Your task to perform on an android device: clear all cookies in the chrome app Image 0: 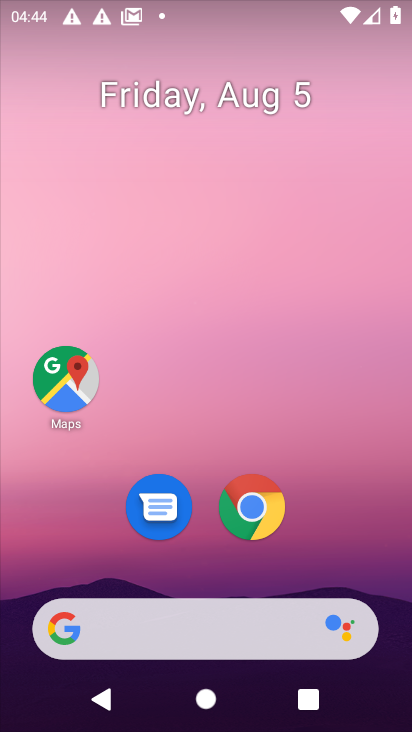
Step 0: click (251, 520)
Your task to perform on an android device: clear all cookies in the chrome app Image 1: 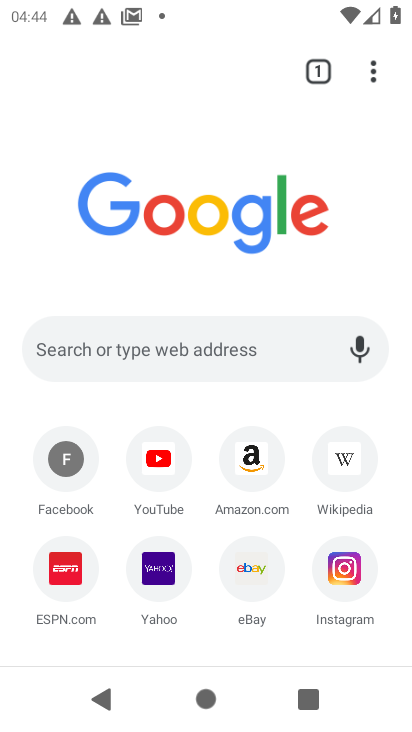
Step 1: click (369, 70)
Your task to perform on an android device: clear all cookies in the chrome app Image 2: 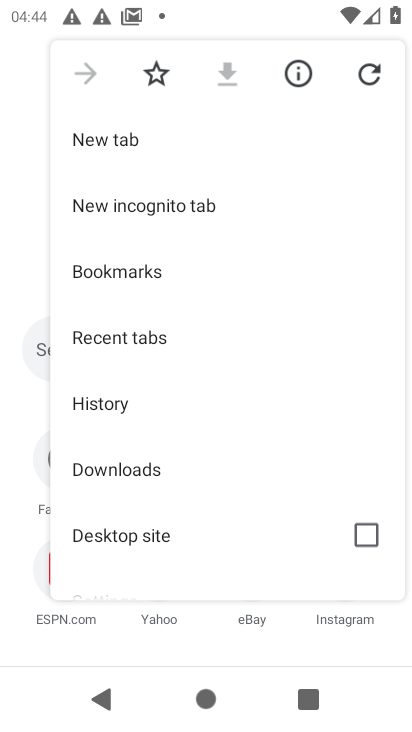
Step 2: click (140, 406)
Your task to perform on an android device: clear all cookies in the chrome app Image 3: 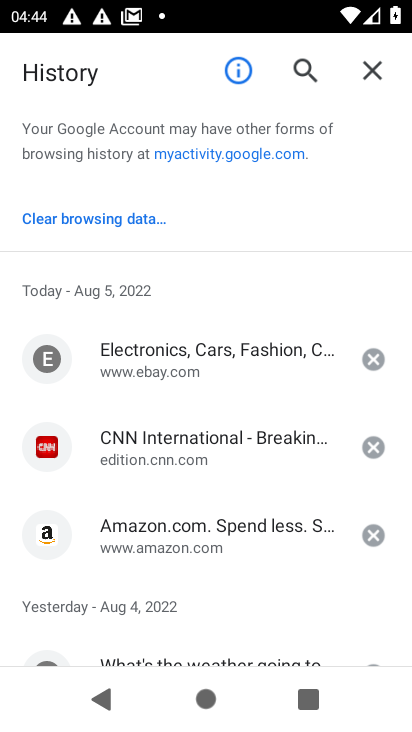
Step 3: click (115, 207)
Your task to perform on an android device: clear all cookies in the chrome app Image 4: 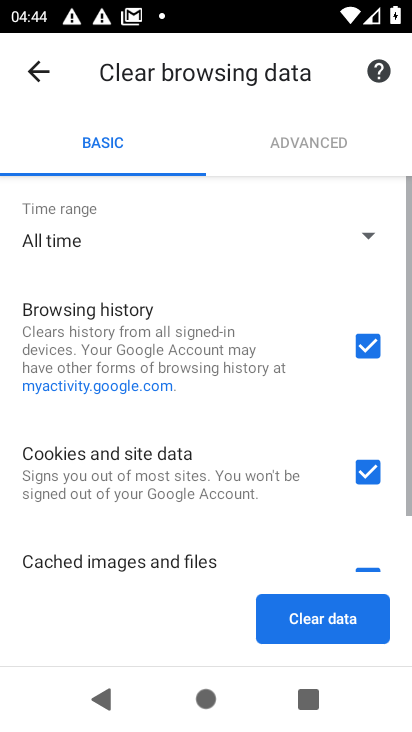
Step 4: click (366, 617)
Your task to perform on an android device: clear all cookies in the chrome app Image 5: 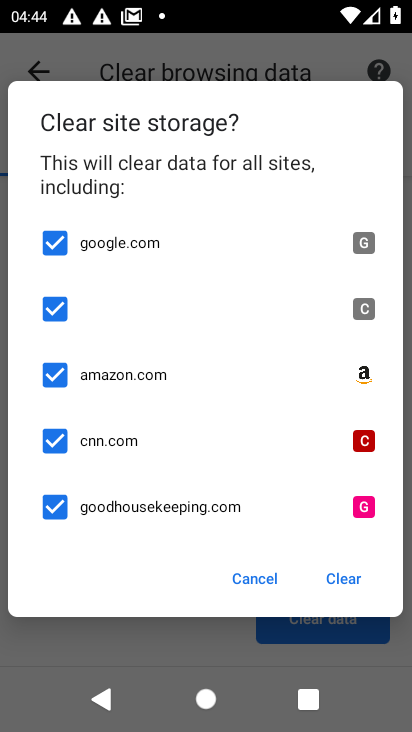
Step 5: click (347, 587)
Your task to perform on an android device: clear all cookies in the chrome app Image 6: 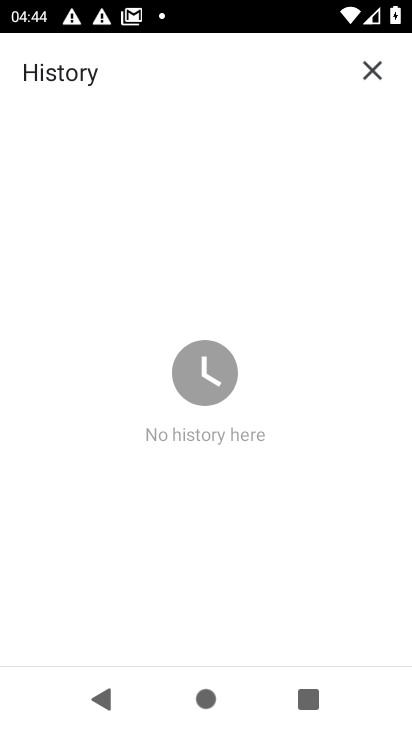
Step 6: task complete